Your task to perform on an android device: star an email in the gmail app Image 0: 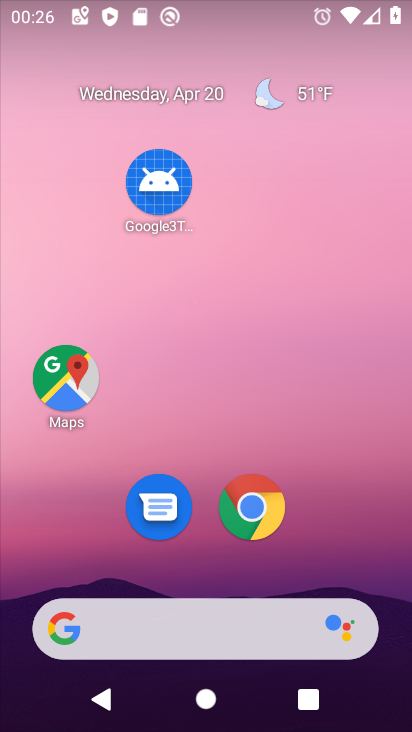
Step 0: drag from (204, 557) to (170, 34)
Your task to perform on an android device: star an email in the gmail app Image 1: 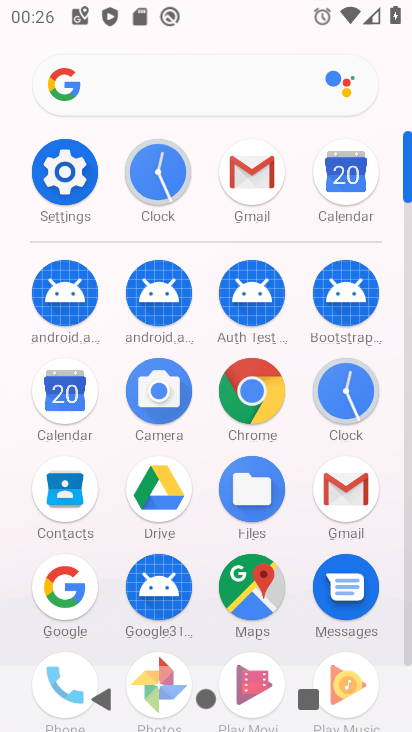
Step 1: click (248, 183)
Your task to perform on an android device: star an email in the gmail app Image 2: 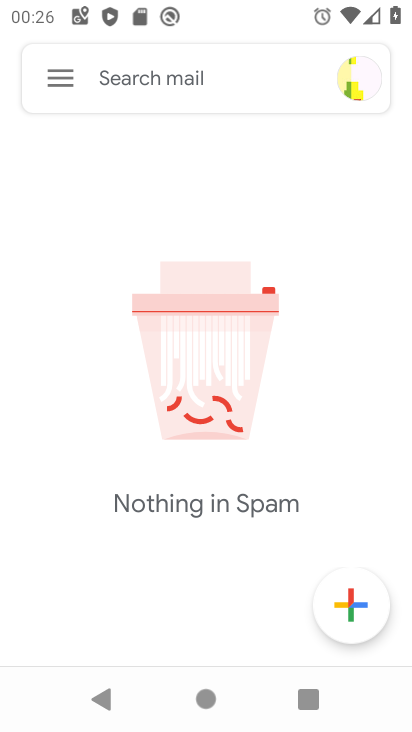
Step 2: click (50, 73)
Your task to perform on an android device: star an email in the gmail app Image 3: 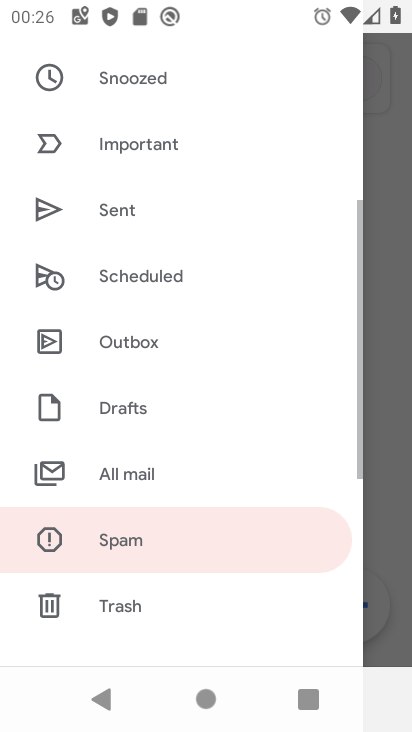
Step 3: drag from (138, 165) to (218, 495)
Your task to perform on an android device: star an email in the gmail app Image 4: 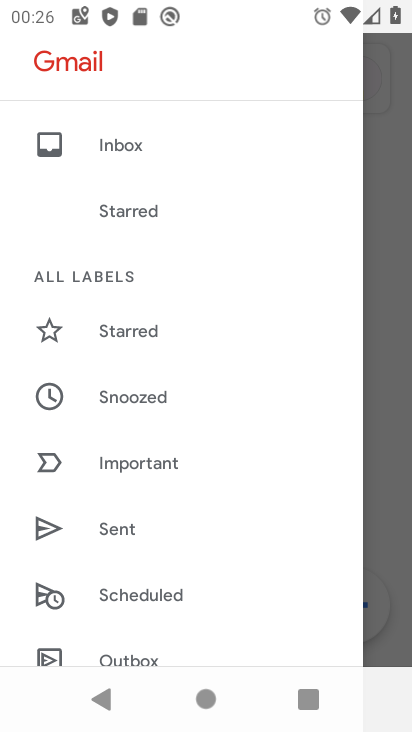
Step 4: drag from (189, 506) to (208, 66)
Your task to perform on an android device: star an email in the gmail app Image 5: 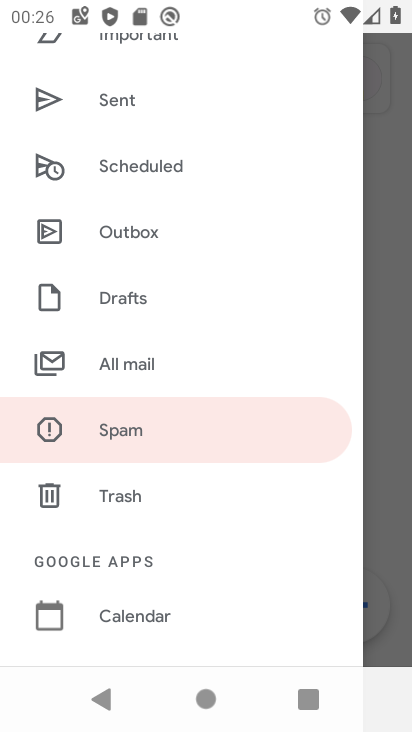
Step 5: click (150, 369)
Your task to perform on an android device: star an email in the gmail app Image 6: 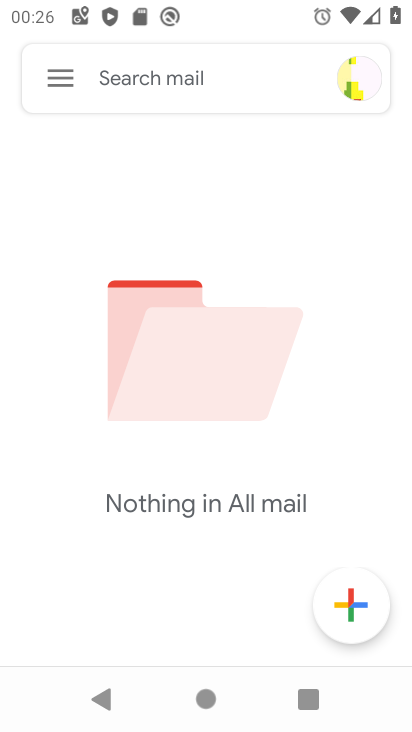
Step 6: task complete